Your task to perform on an android device: open app "Facebook Messenger" (install if not already installed), go to login, and select forgot password Image 0: 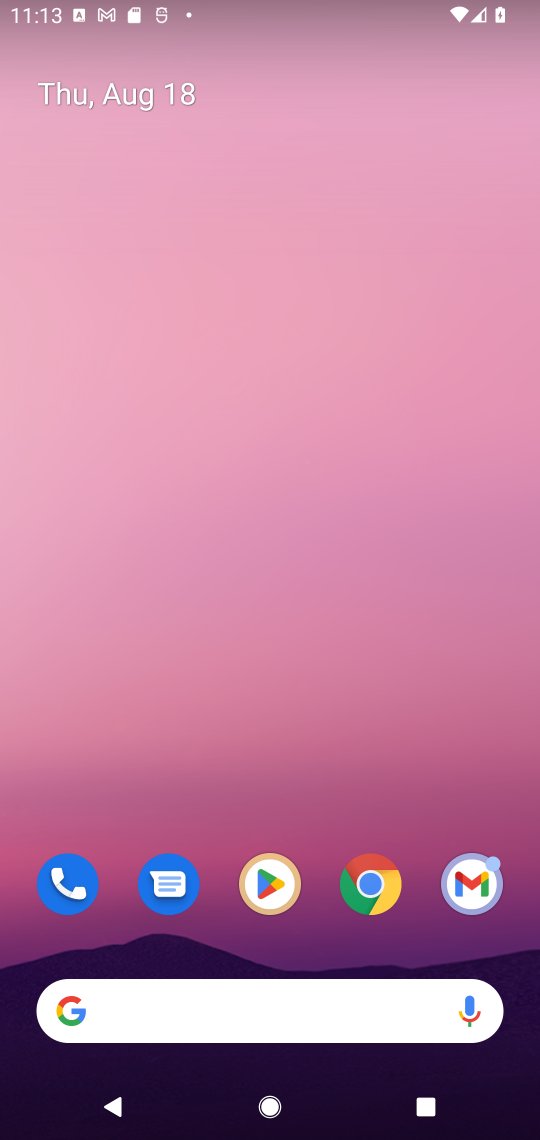
Step 0: drag from (199, 1023) to (148, 61)
Your task to perform on an android device: open app "Facebook Messenger" (install if not already installed), go to login, and select forgot password Image 1: 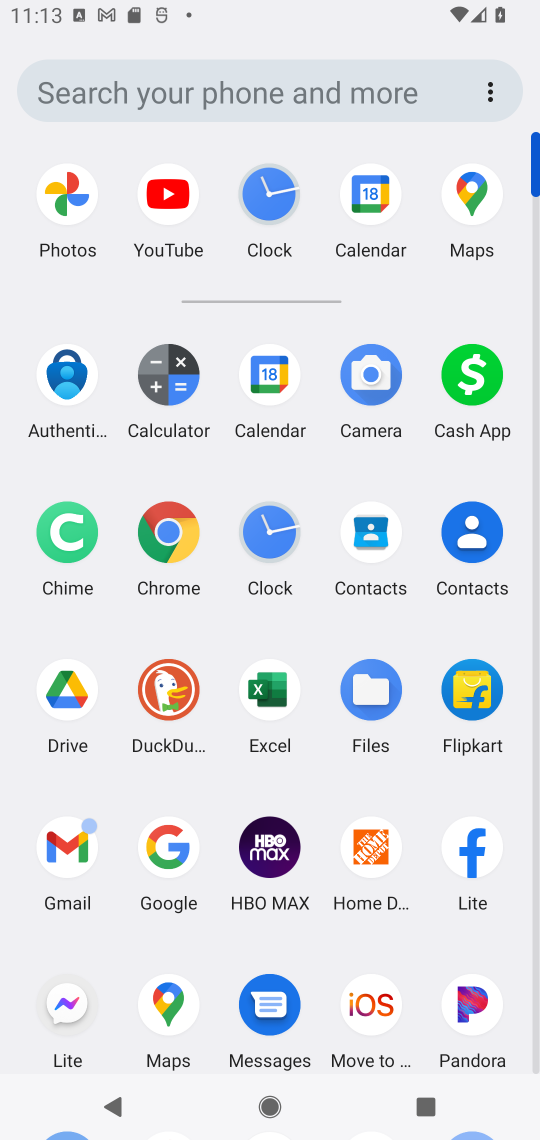
Step 1: drag from (326, 983) to (306, 419)
Your task to perform on an android device: open app "Facebook Messenger" (install if not already installed), go to login, and select forgot password Image 2: 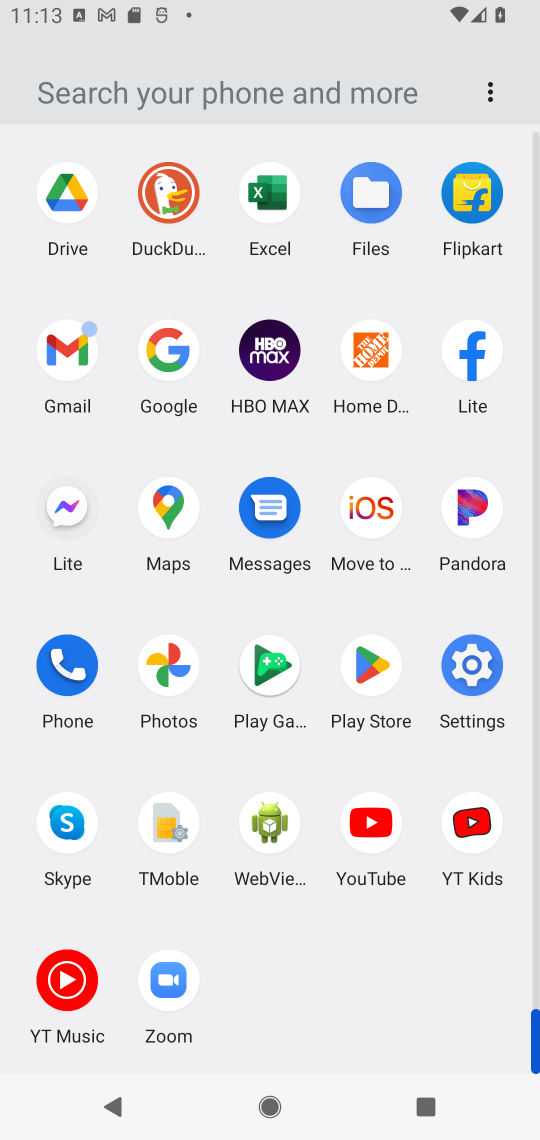
Step 2: click (372, 663)
Your task to perform on an android device: open app "Facebook Messenger" (install if not already installed), go to login, and select forgot password Image 3: 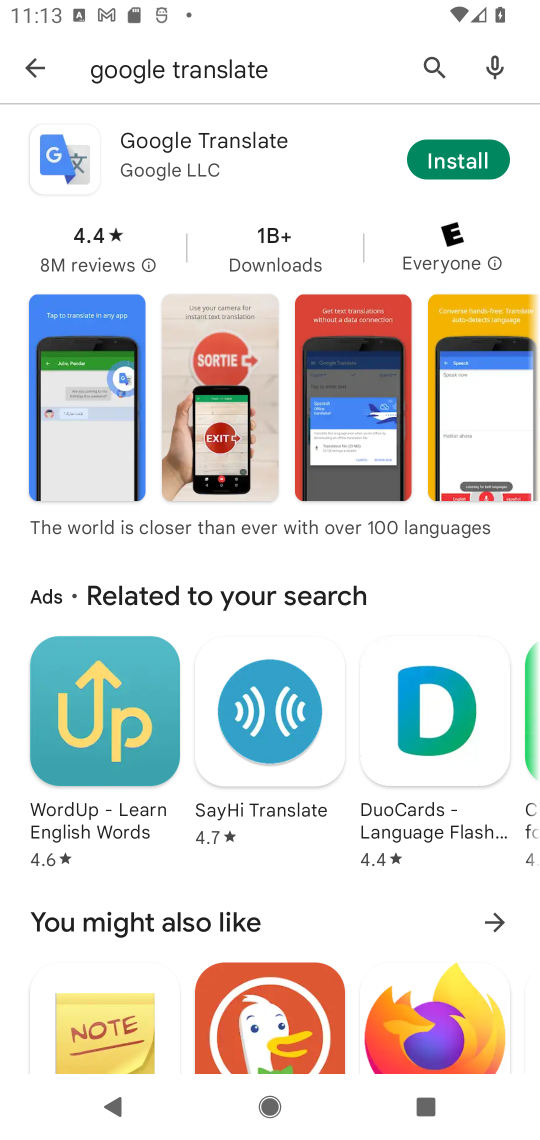
Step 3: press back button
Your task to perform on an android device: open app "Facebook Messenger" (install if not already installed), go to login, and select forgot password Image 4: 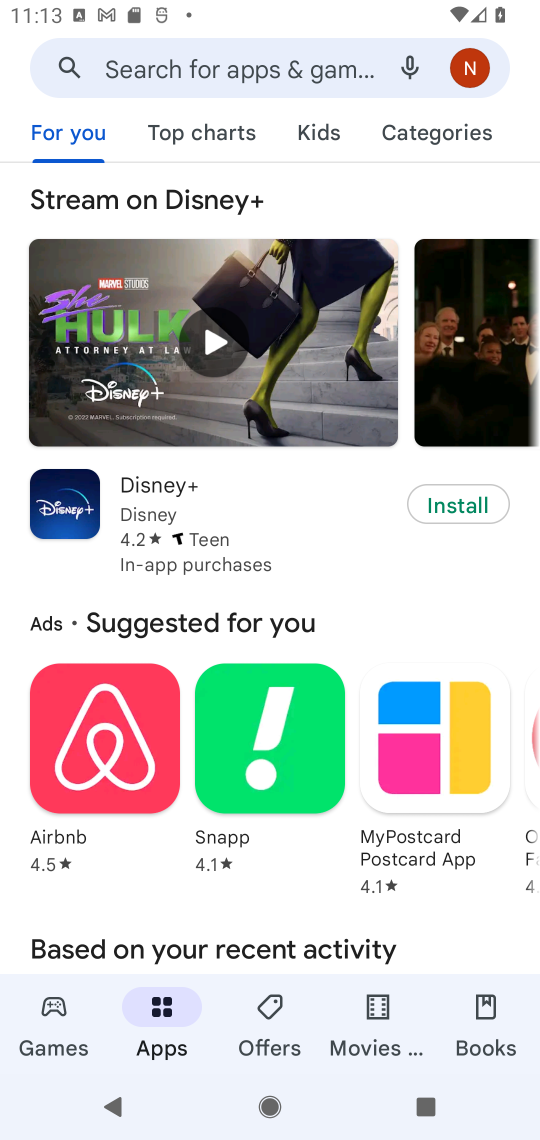
Step 4: click (315, 76)
Your task to perform on an android device: open app "Facebook Messenger" (install if not already installed), go to login, and select forgot password Image 5: 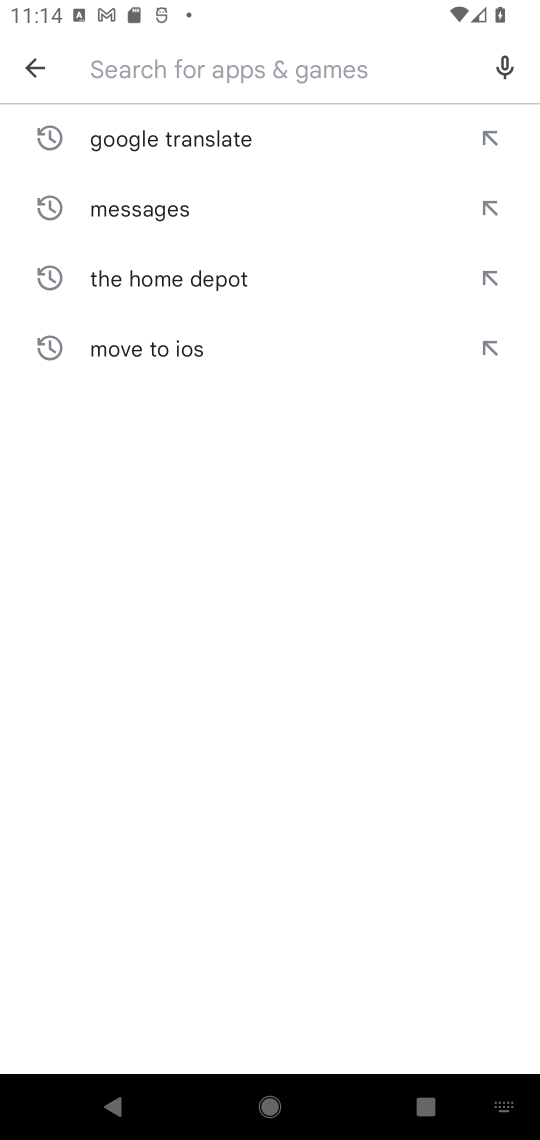
Step 5: type "Facebook Messenger"
Your task to perform on an android device: open app "Facebook Messenger" (install if not already installed), go to login, and select forgot password Image 6: 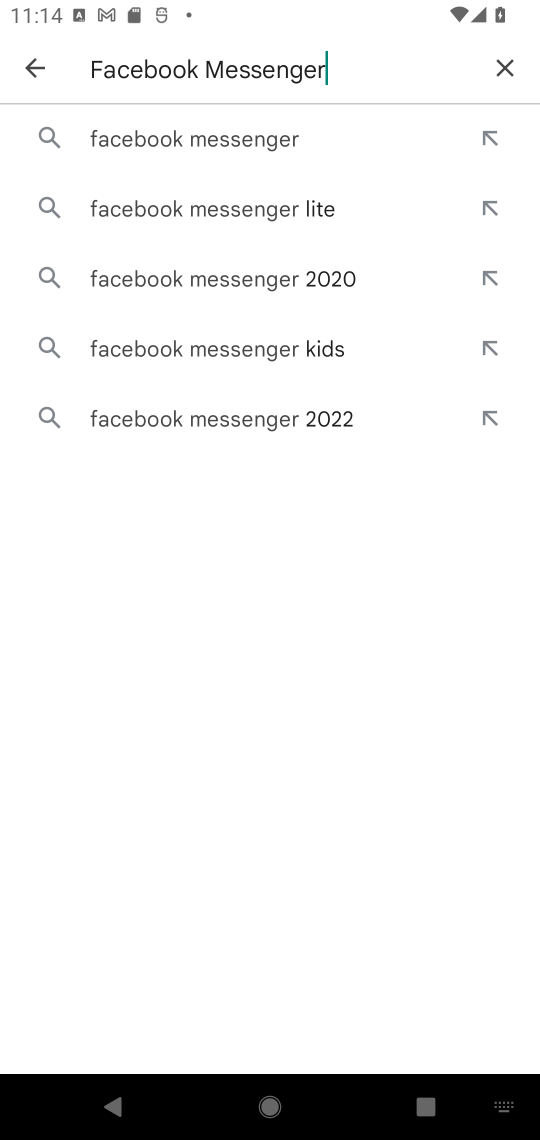
Step 6: click (282, 140)
Your task to perform on an android device: open app "Facebook Messenger" (install if not already installed), go to login, and select forgot password Image 7: 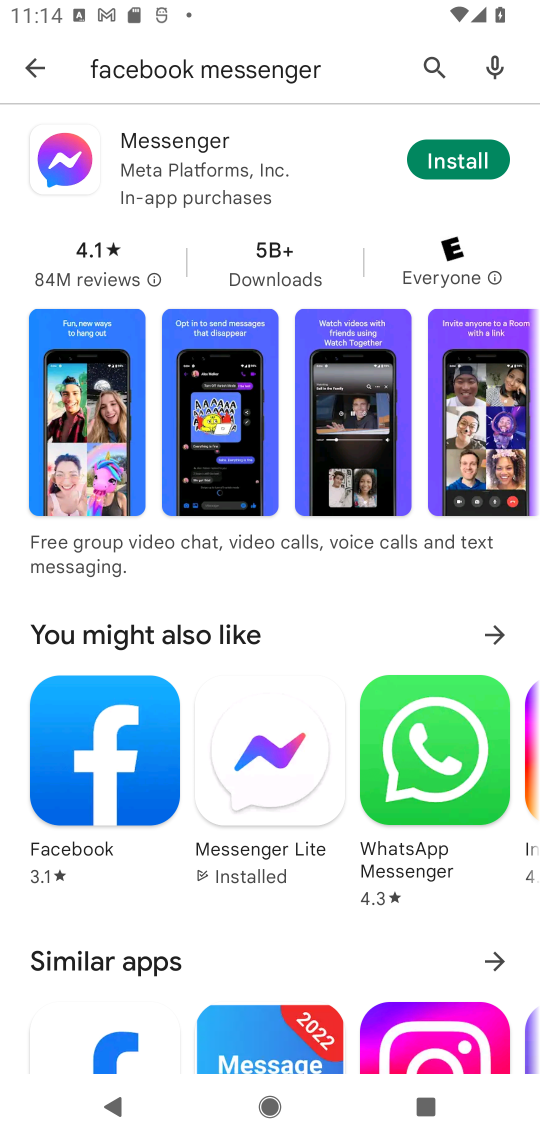
Step 7: click (465, 167)
Your task to perform on an android device: open app "Facebook Messenger" (install if not already installed), go to login, and select forgot password Image 8: 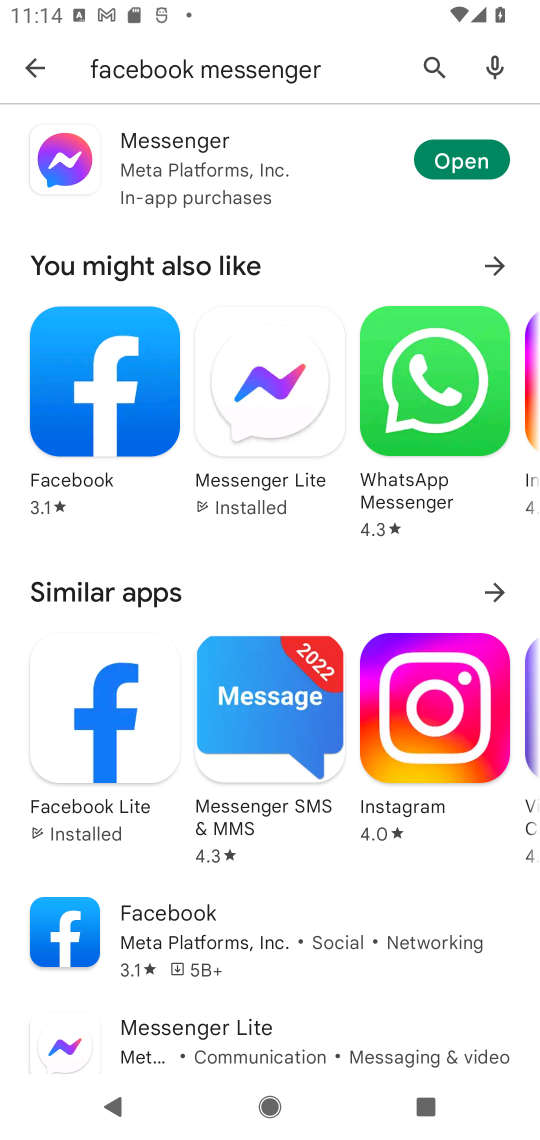
Step 8: click (441, 165)
Your task to perform on an android device: open app "Facebook Messenger" (install if not already installed), go to login, and select forgot password Image 9: 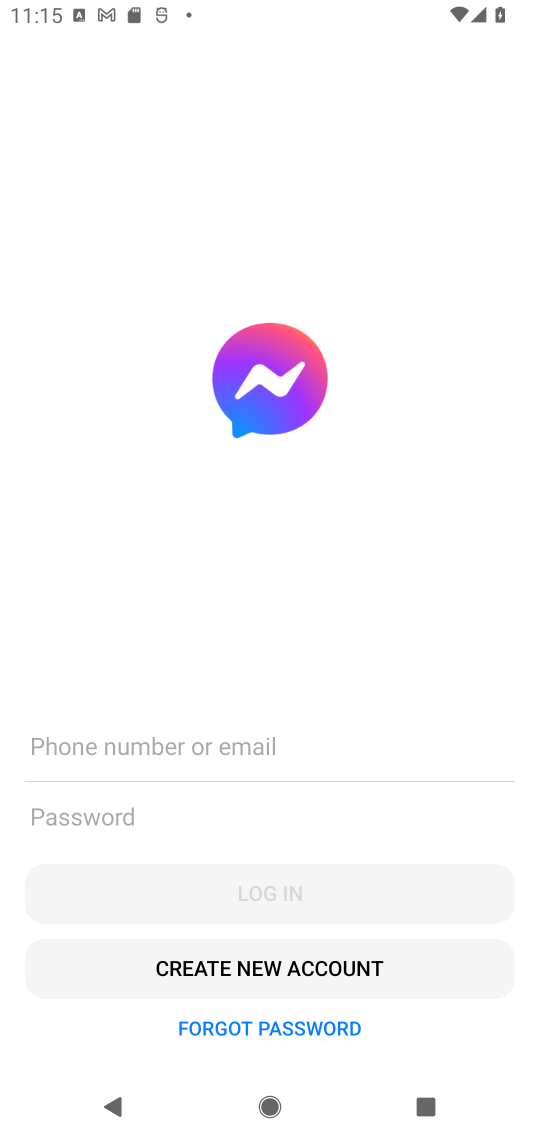
Step 9: click (231, 1030)
Your task to perform on an android device: open app "Facebook Messenger" (install if not already installed), go to login, and select forgot password Image 10: 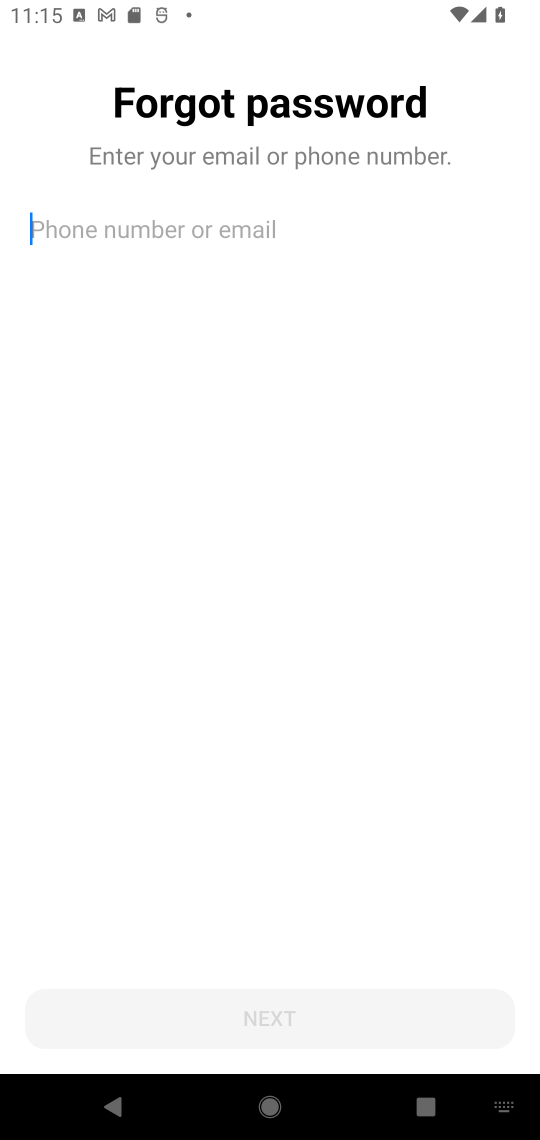
Step 10: task complete